Your task to perform on an android device: What's the news this afternoon? Image 0: 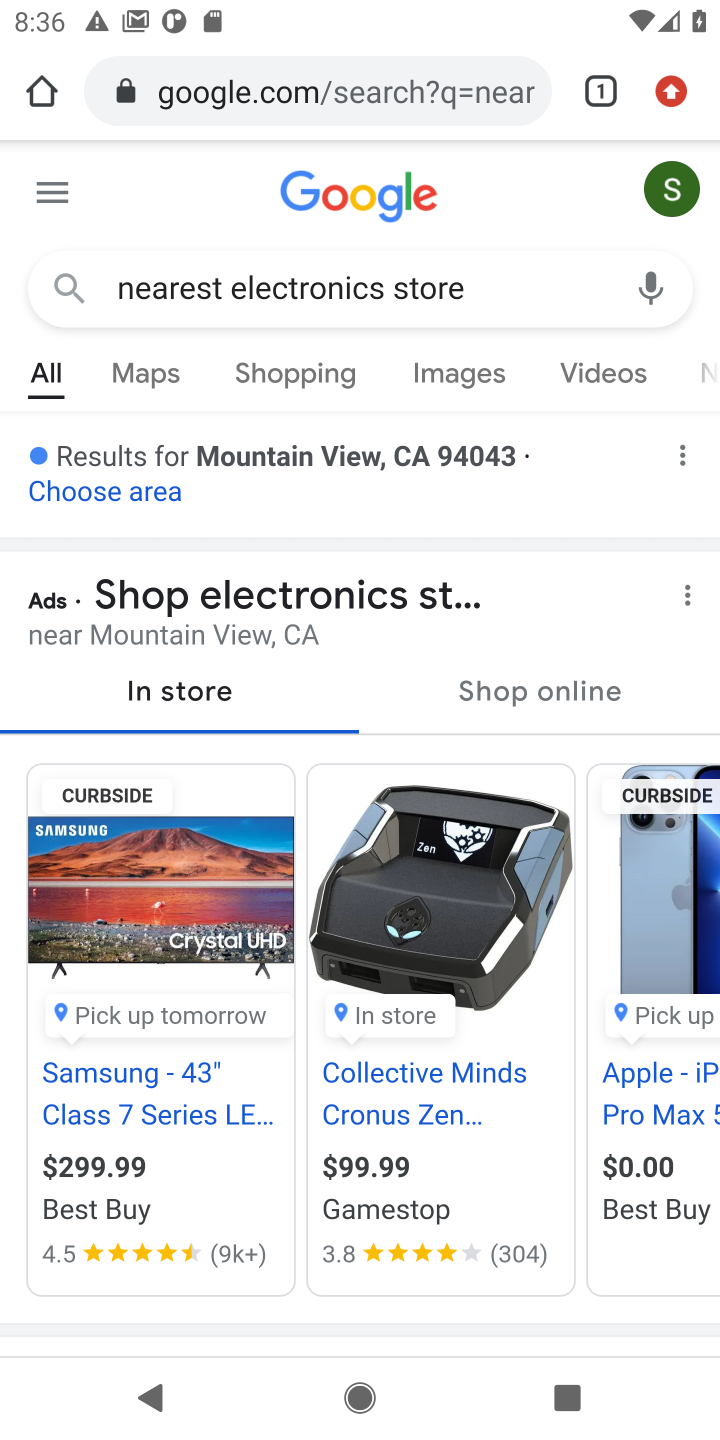
Step 0: drag from (626, 946) to (582, 1055)
Your task to perform on an android device: What's the news this afternoon? Image 1: 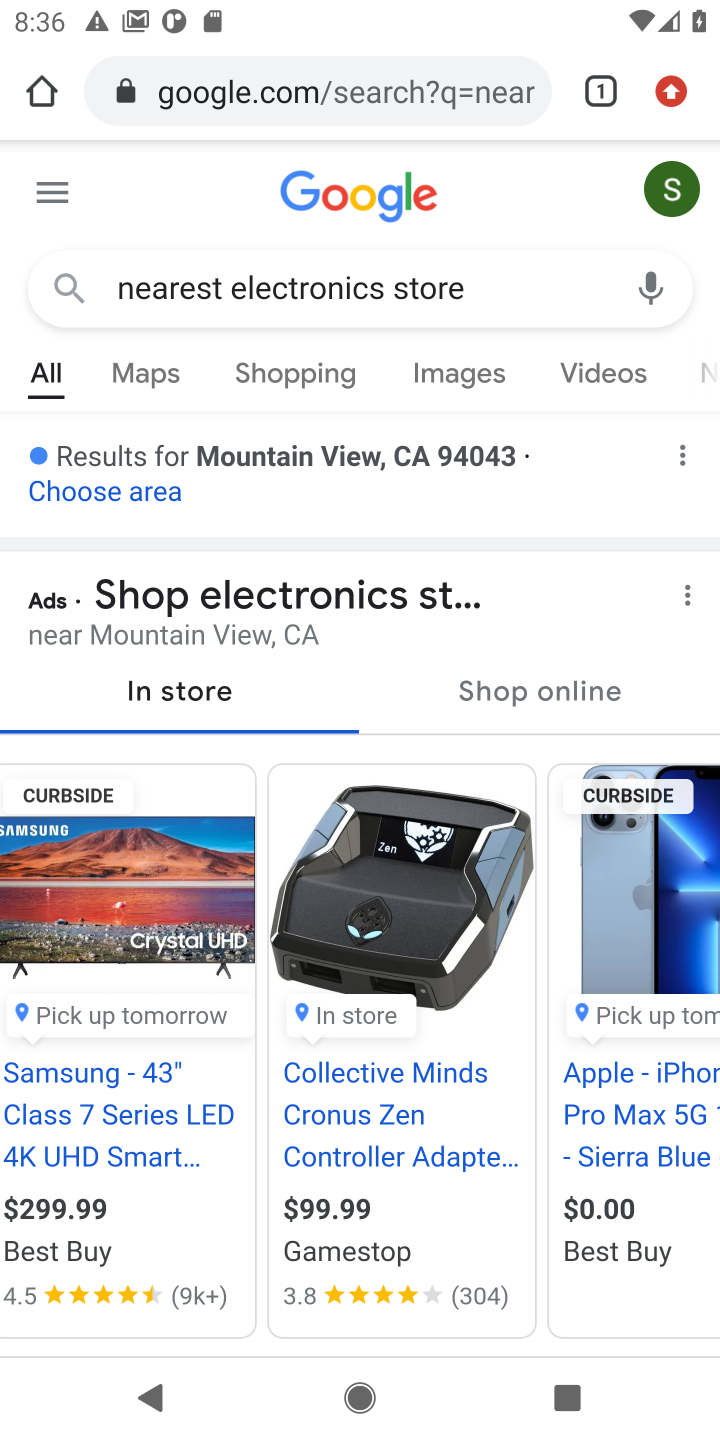
Step 1: click (450, 87)
Your task to perform on an android device: What's the news this afternoon? Image 2: 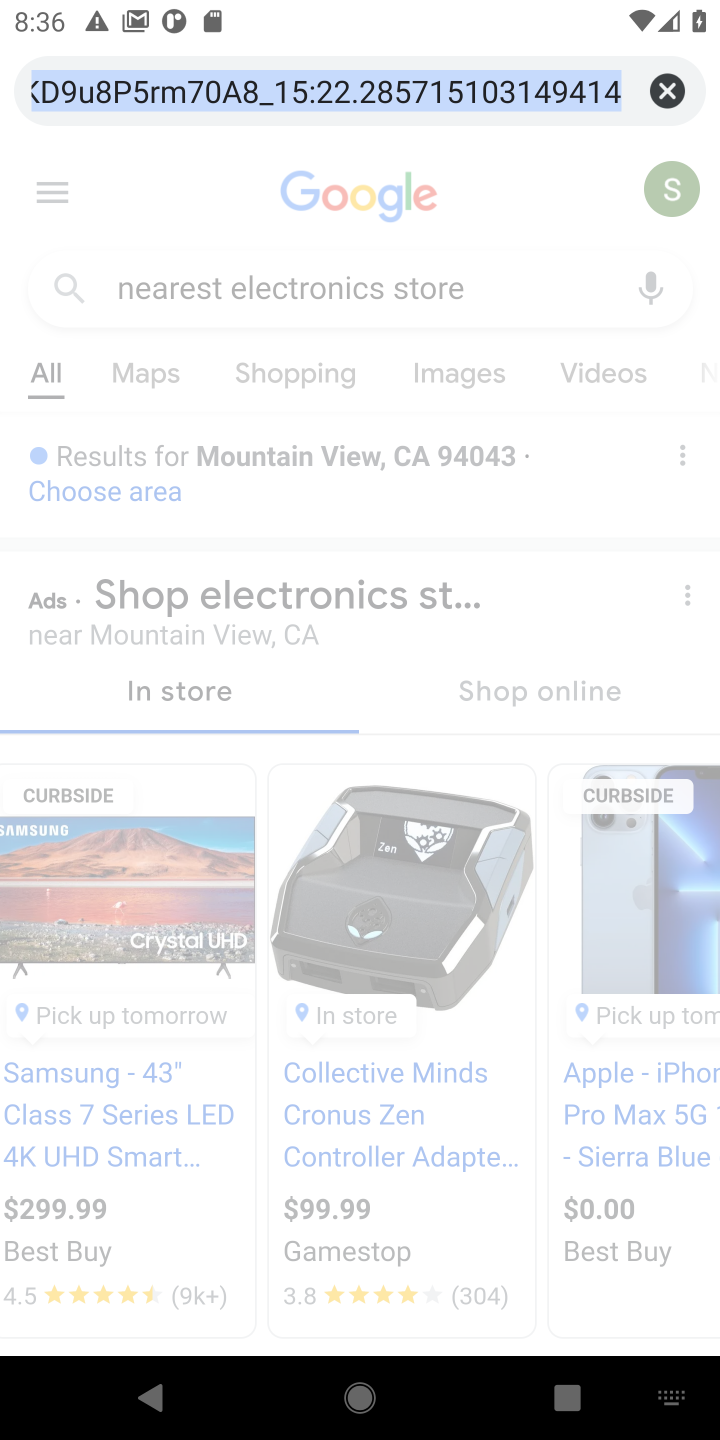
Step 2: click (664, 100)
Your task to perform on an android device: What's the news this afternoon? Image 3: 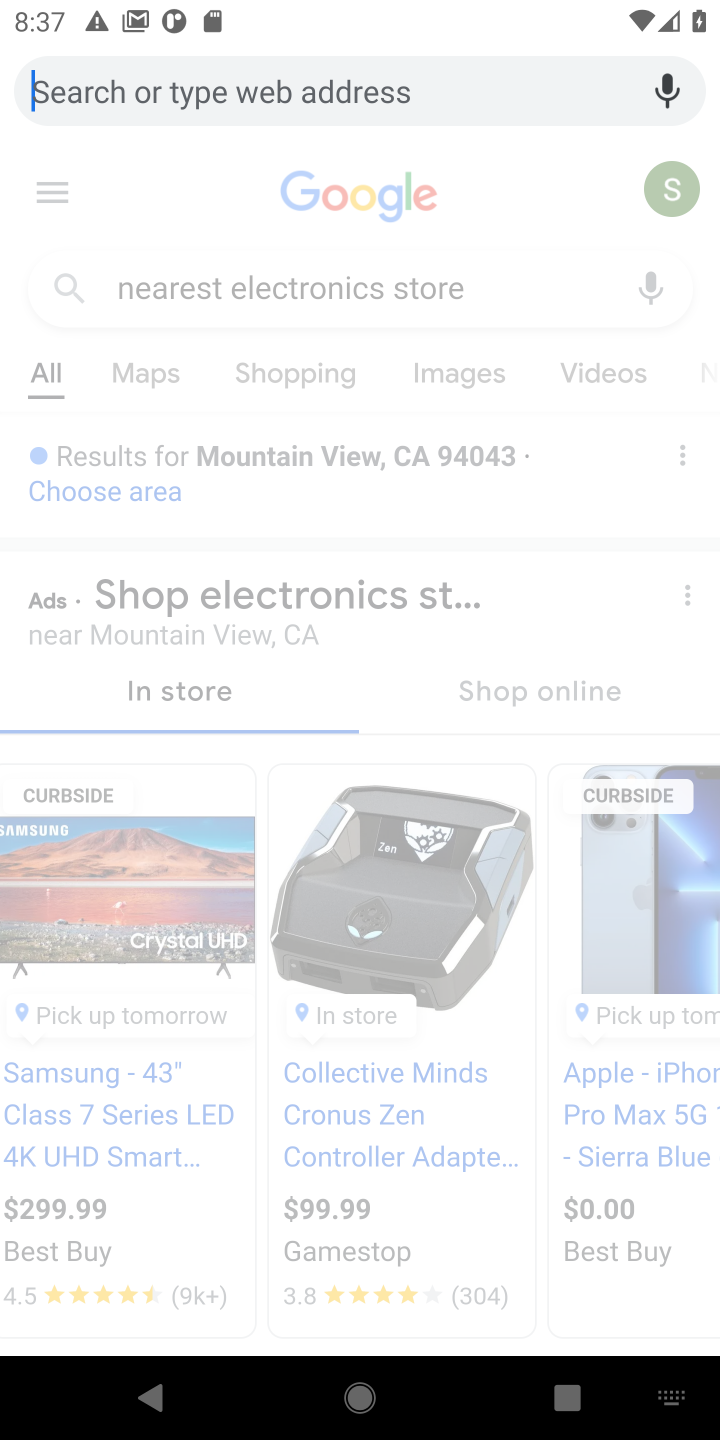
Step 3: type "What's the news this afternoon?"
Your task to perform on an android device: What's the news this afternoon? Image 4: 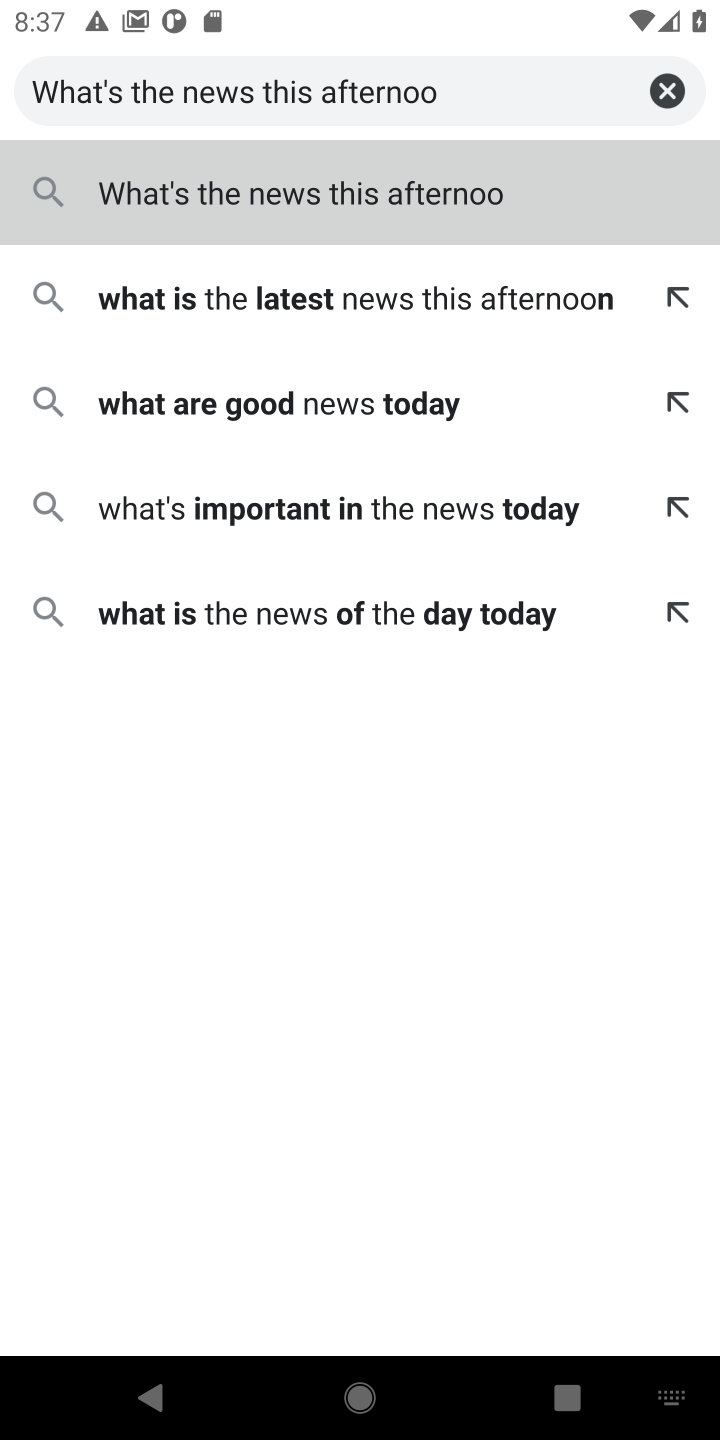
Step 4: type "n"
Your task to perform on an android device: What's the news this afternoon? Image 5: 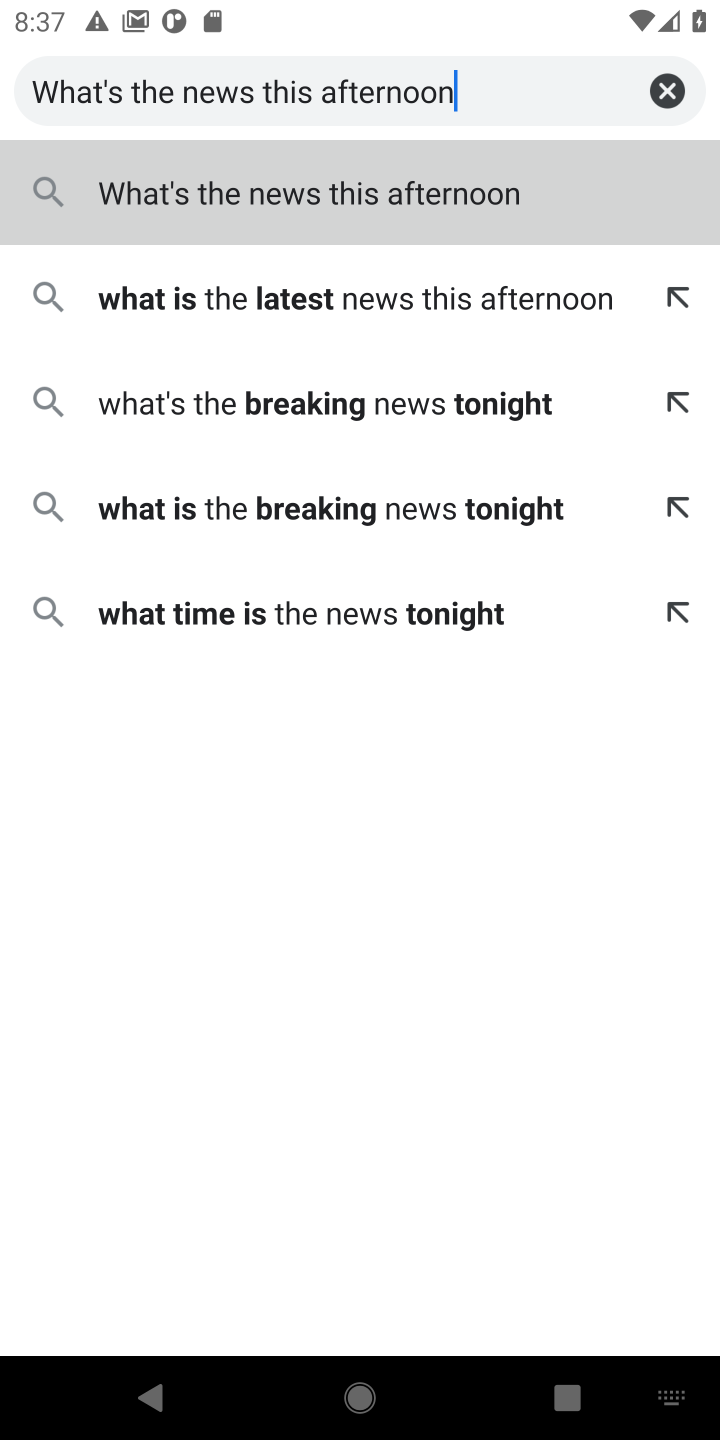
Step 5: click (446, 188)
Your task to perform on an android device: What's the news this afternoon? Image 6: 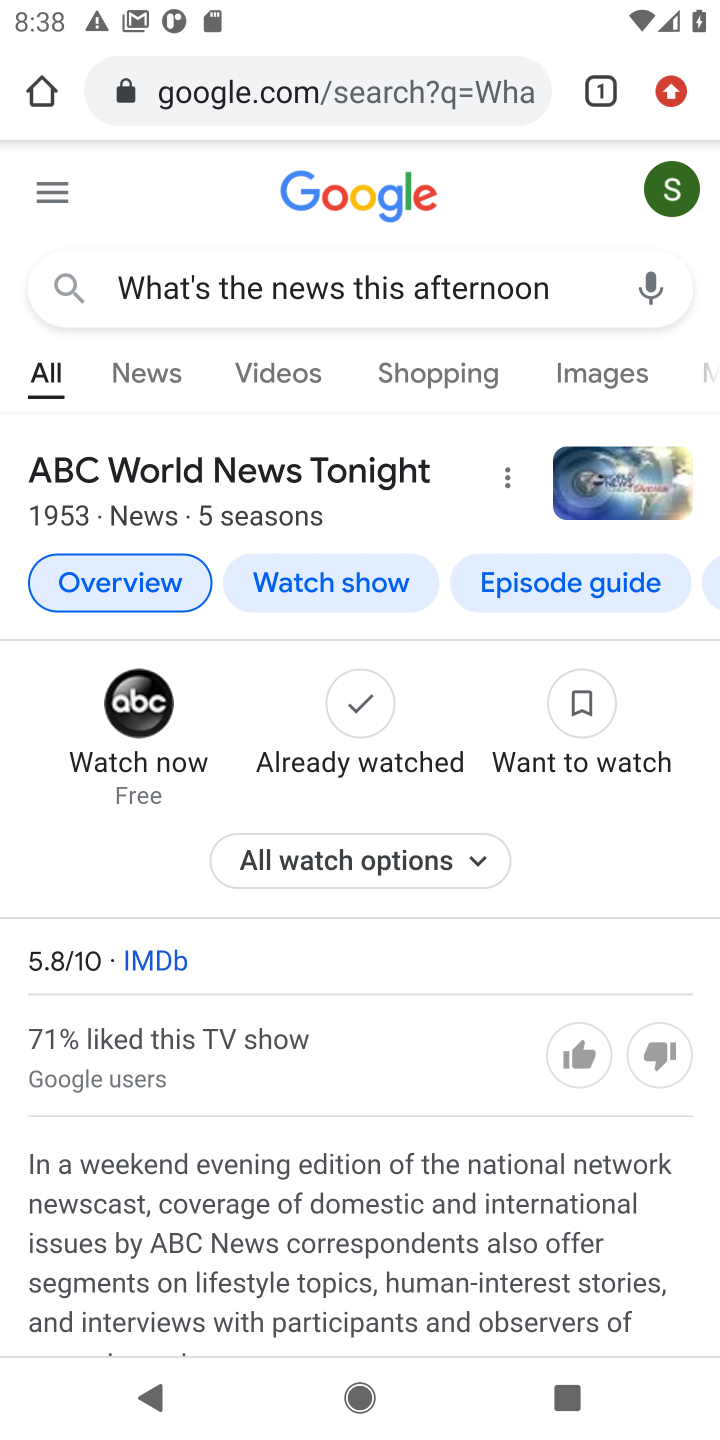
Step 6: task complete